Your task to perform on an android device: turn off translation in the chrome app Image 0: 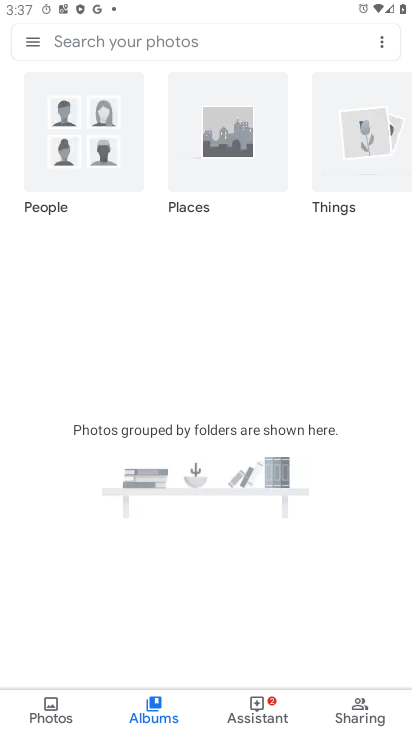
Step 0: press home button
Your task to perform on an android device: turn off translation in the chrome app Image 1: 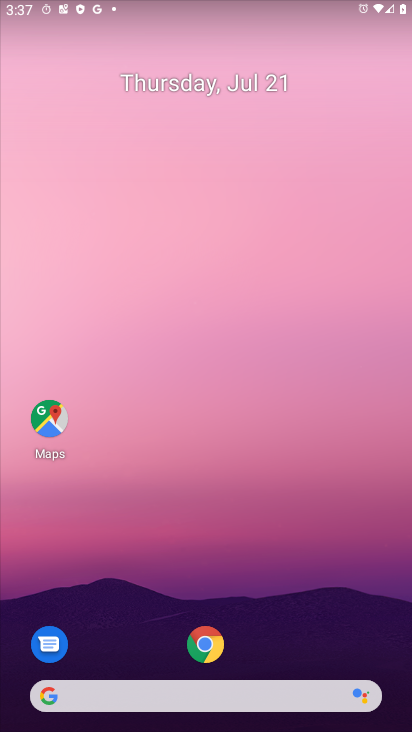
Step 1: click (211, 639)
Your task to perform on an android device: turn off translation in the chrome app Image 2: 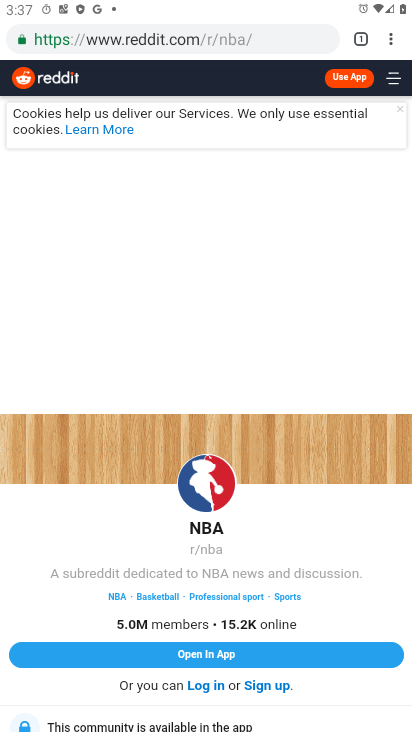
Step 2: drag from (389, 33) to (260, 509)
Your task to perform on an android device: turn off translation in the chrome app Image 3: 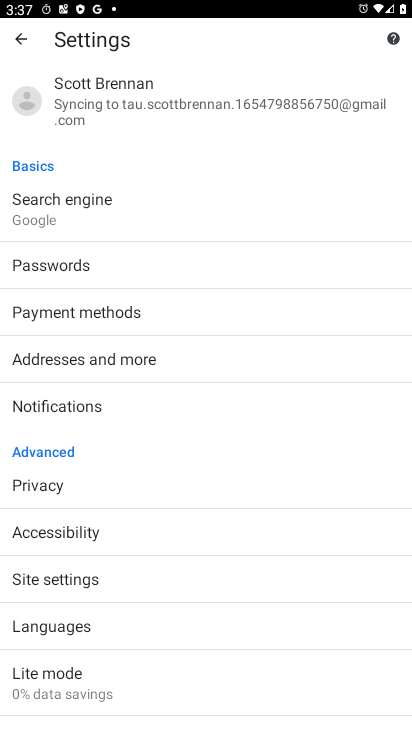
Step 3: click (74, 626)
Your task to perform on an android device: turn off translation in the chrome app Image 4: 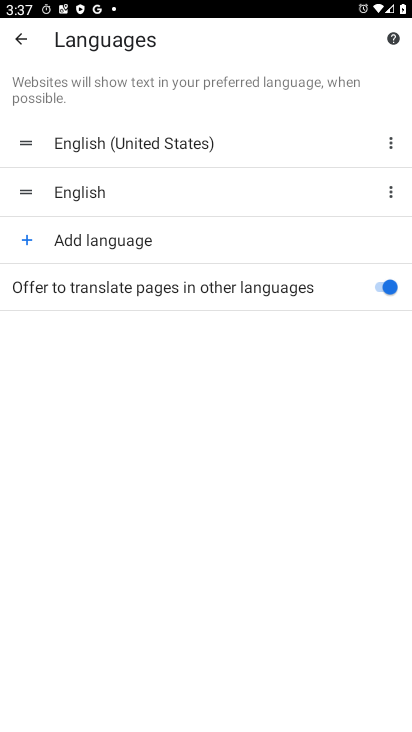
Step 4: click (383, 283)
Your task to perform on an android device: turn off translation in the chrome app Image 5: 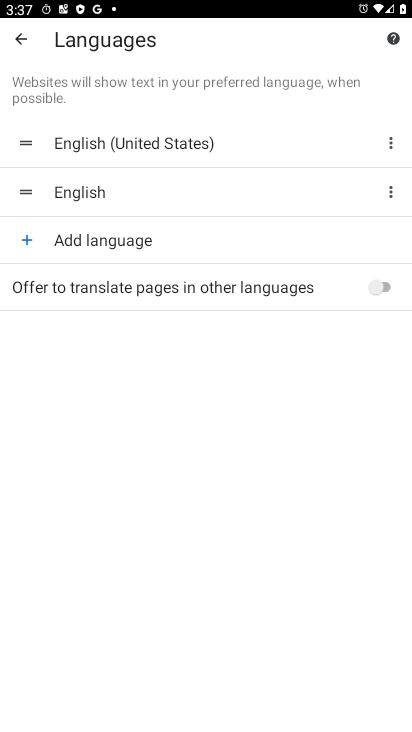
Step 5: task complete